Your task to perform on an android device: check google app version Image 0: 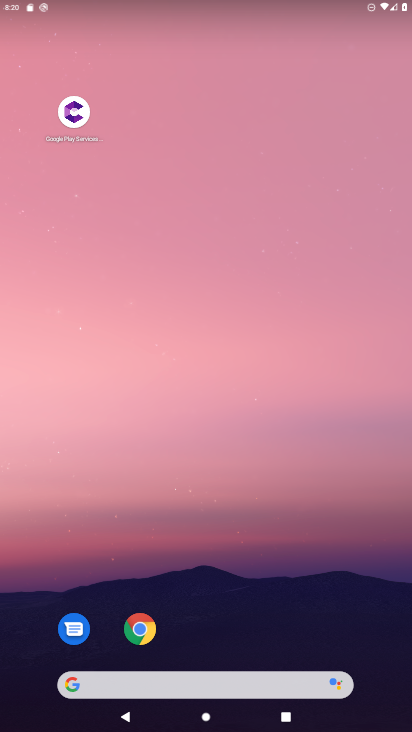
Step 0: drag from (210, 628) to (268, 141)
Your task to perform on an android device: check google app version Image 1: 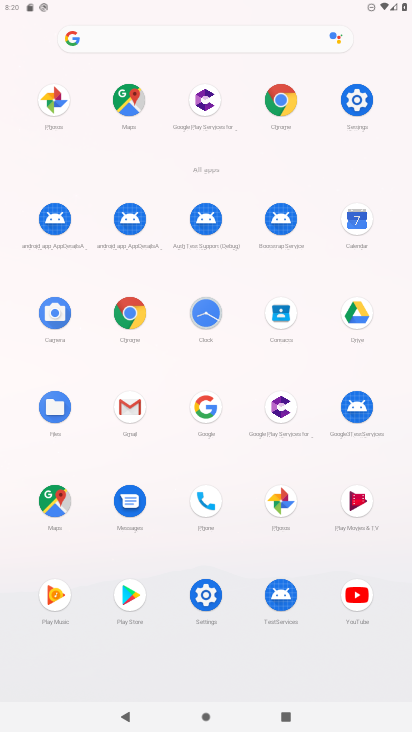
Step 1: click (207, 587)
Your task to perform on an android device: check google app version Image 2: 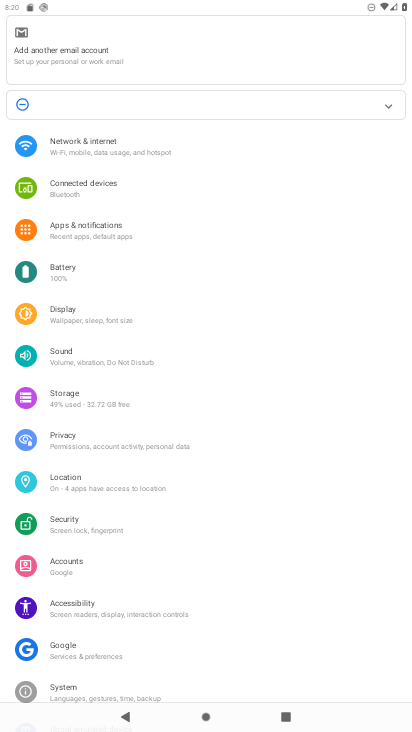
Step 2: click (112, 229)
Your task to perform on an android device: check google app version Image 3: 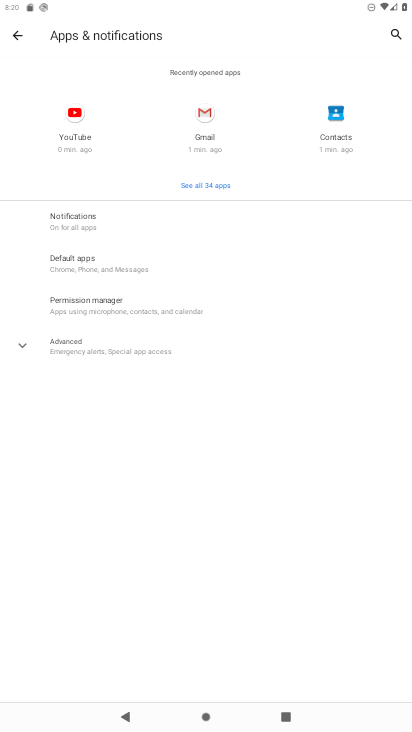
Step 3: click (194, 181)
Your task to perform on an android device: check google app version Image 4: 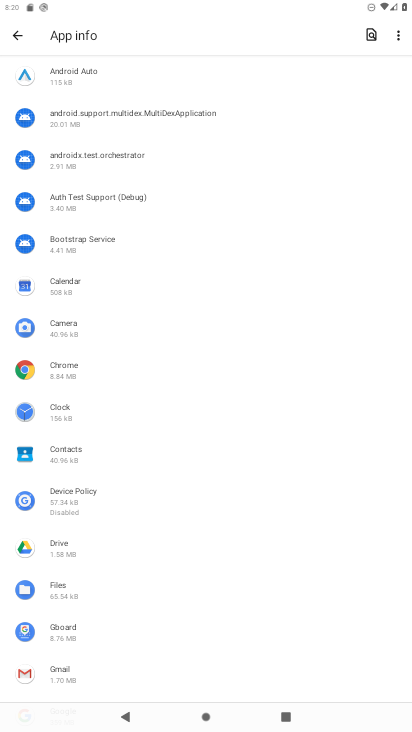
Step 4: drag from (74, 607) to (212, 116)
Your task to perform on an android device: check google app version Image 5: 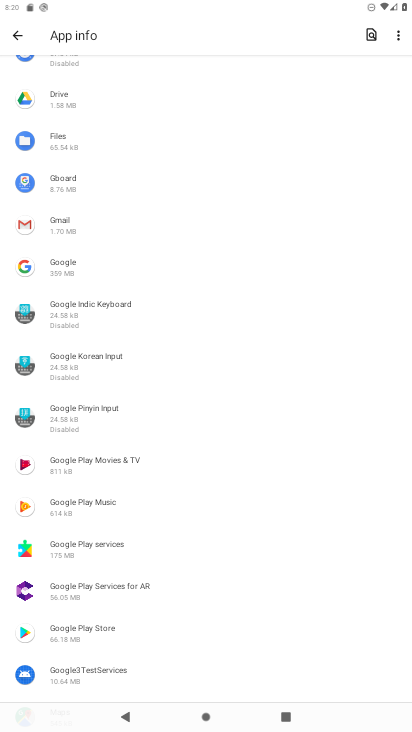
Step 5: click (90, 265)
Your task to perform on an android device: check google app version Image 6: 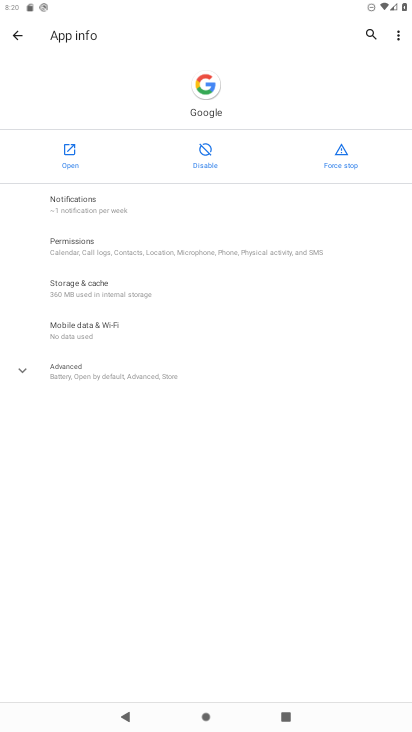
Step 6: click (158, 371)
Your task to perform on an android device: check google app version Image 7: 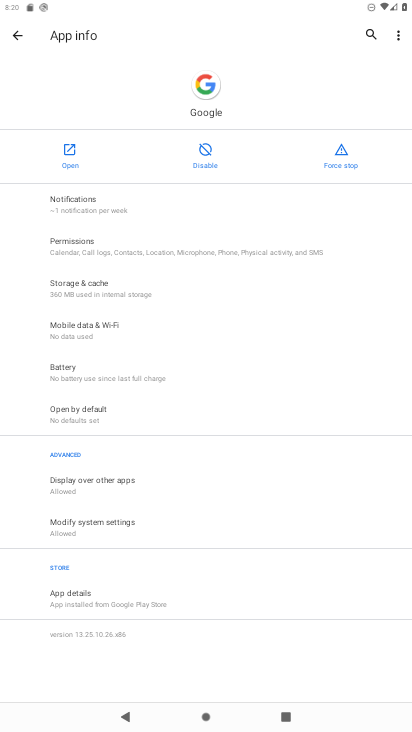
Step 7: task complete